Your task to perform on an android device: open app "Pinterest" (install if not already installed) Image 0: 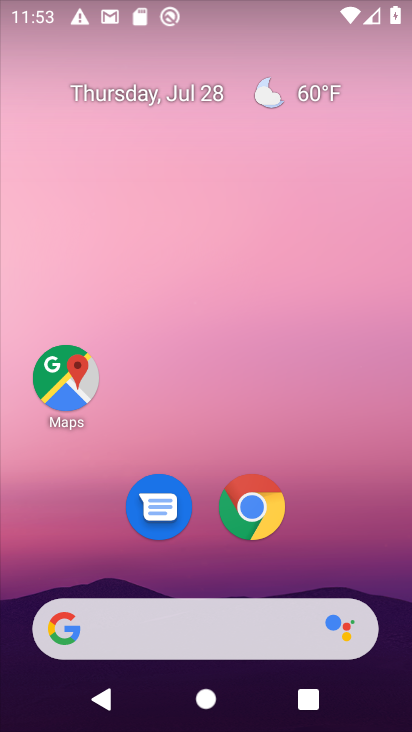
Step 0: drag from (183, 550) to (267, 5)
Your task to perform on an android device: open app "Pinterest" (install if not already installed) Image 1: 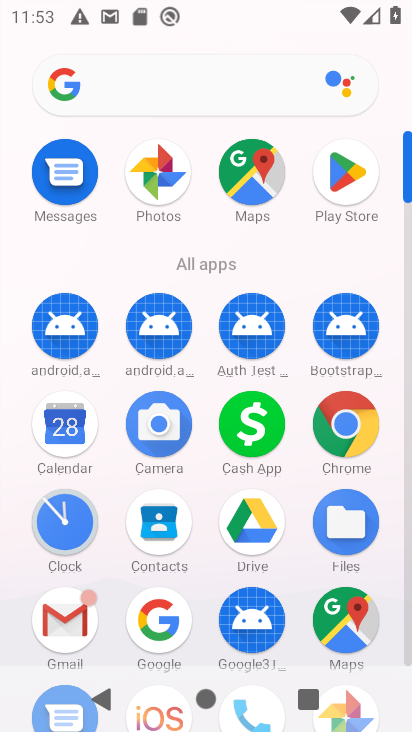
Step 1: click (343, 190)
Your task to perform on an android device: open app "Pinterest" (install if not already installed) Image 2: 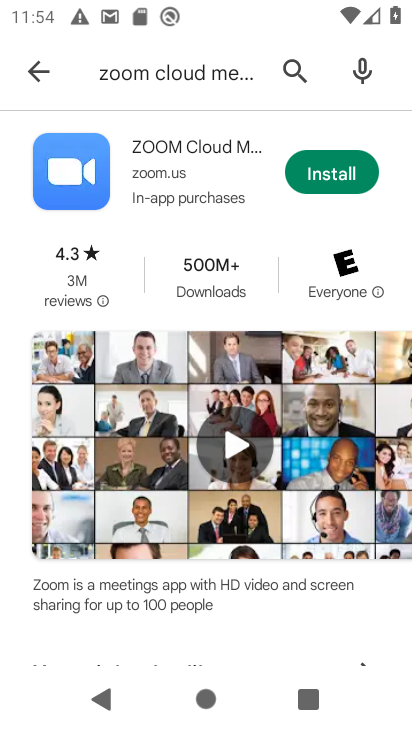
Step 2: click (147, 78)
Your task to perform on an android device: open app "Pinterest" (install if not already installed) Image 3: 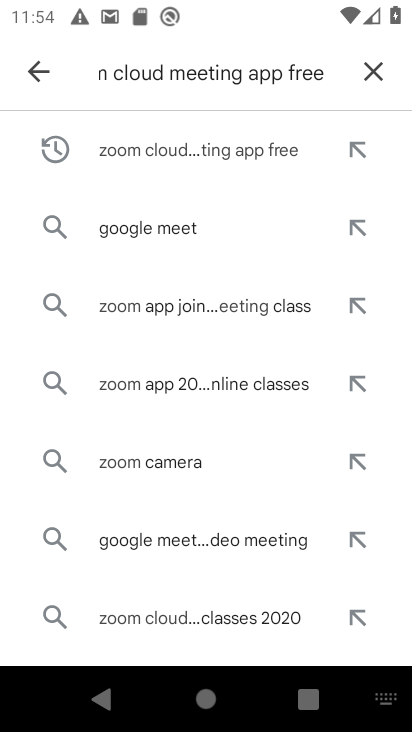
Step 3: click (366, 69)
Your task to perform on an android device: open app "Pinterest" (install if not already installed) Image 4: 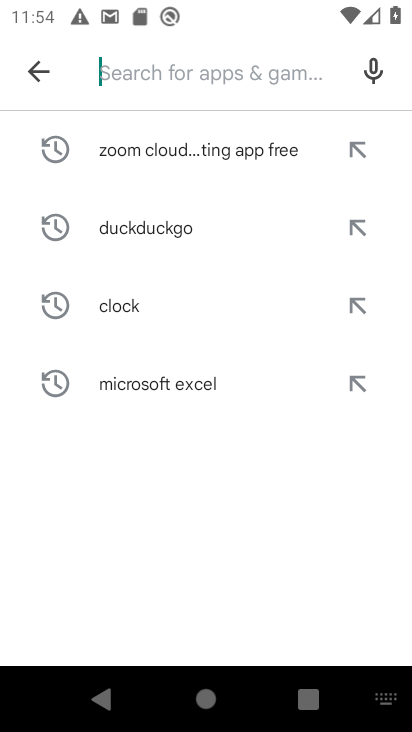
Step 4: type "Pinterest"
Your task to perform on an android device: open app "Pinterest" (install if not already installed) Image 5: 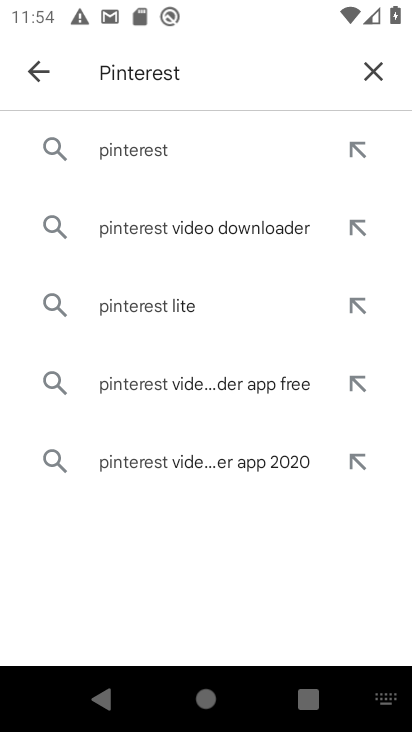
Step 5: click (157, 159)
Your task to perform on an android device: open app "Pinterest" (install if not already installed) Image 6: 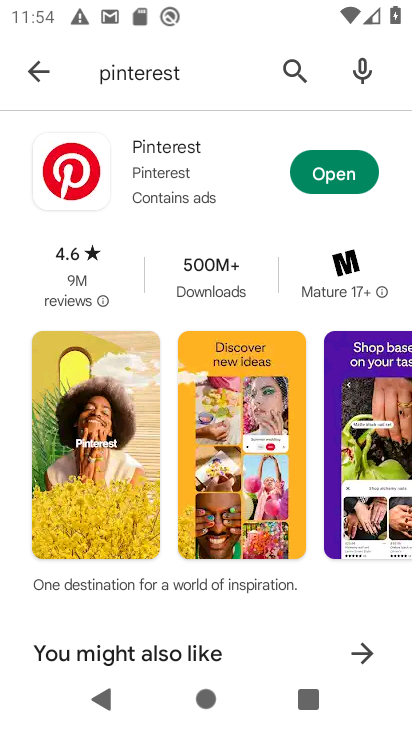
Step 6: click (366, 174)
Your task to perform on an android device: open app "Pinterest" (install if not already installed) Image 7: 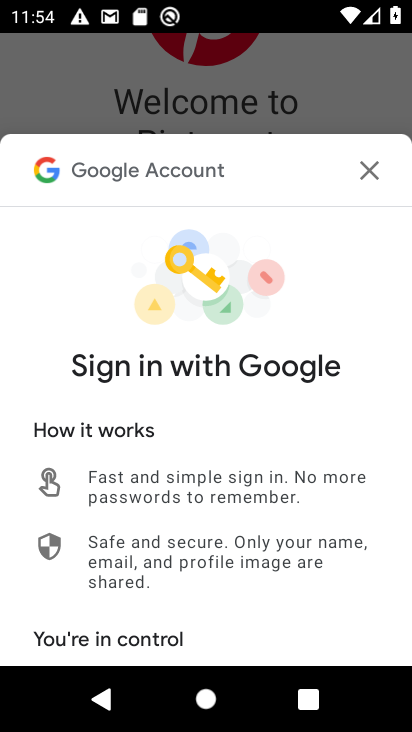
Step 7: click (368, 172)
Your task to perform on an android device: open app "Pinterest" (install if not already installed) Image 8: 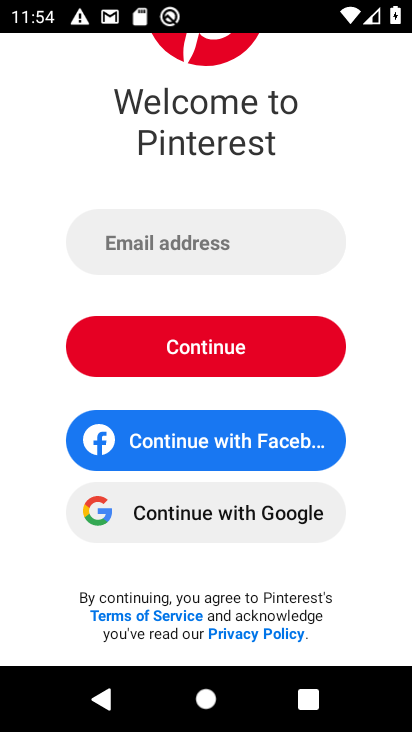
Step 8: click (214, 530)
Your task to perform on an android device: open app "Pinterest" (install if not already installed) Image 9: 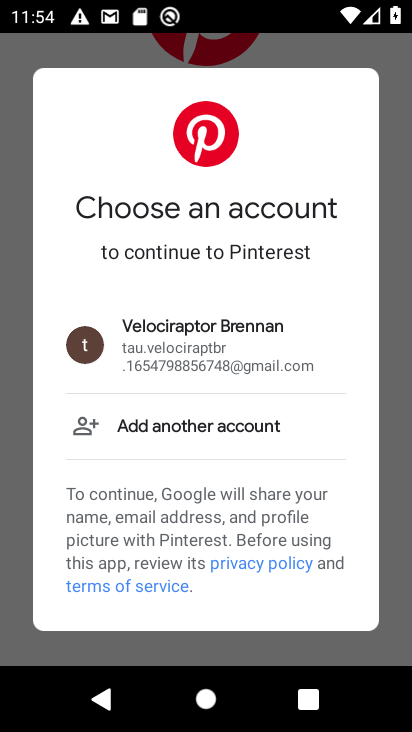
Step 9: click (237, 348)
Your task to perform on an android device: open app "Pinterest" (install if not already installed) Image 10: 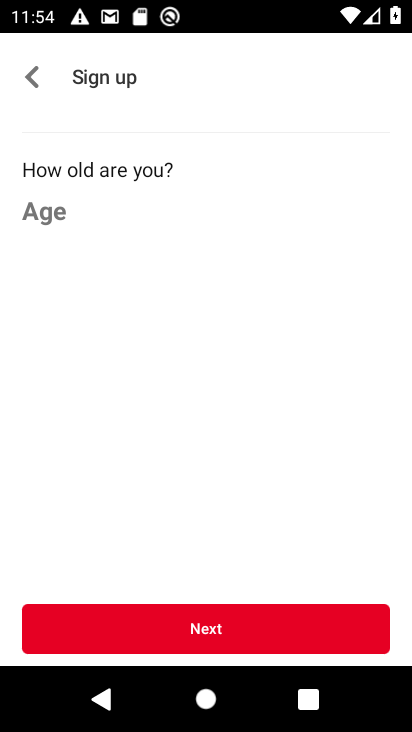
Step 10: task complete